Your task to perform on an android device: Search for Mexican restaurants on Maps Image 0: 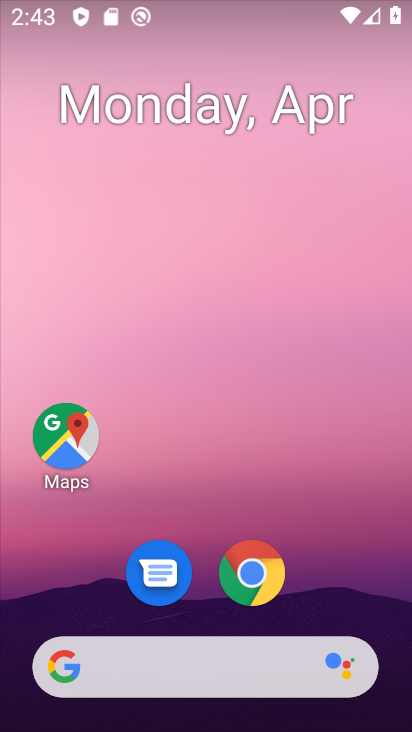
Step 0: drag from (366, 594) to (364, 73)
Your task to perform on an android device: Search for Mexican restaurants on Maps Image 1: 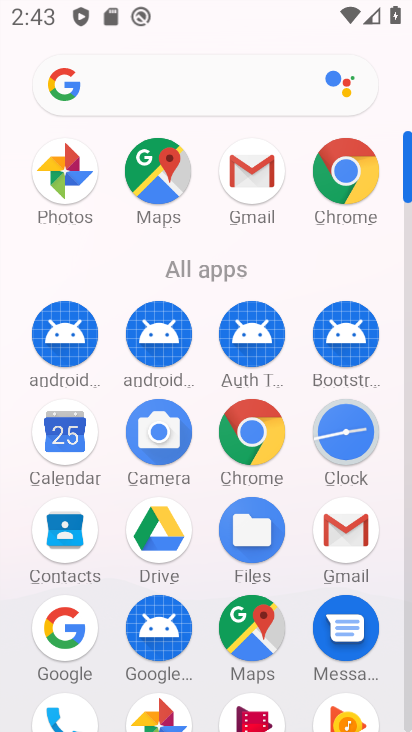
Step 1: click (170, 181)
Your task to perform on an android device: Search for Mexican restaurants on Maps Image 2: 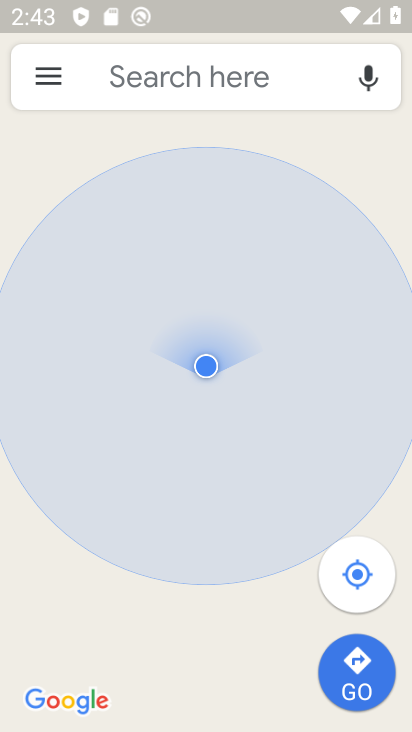
Step 2: click (241, 83)
Your task to perform on an android device: Search for Mexican restaurants on Maps Image 3: 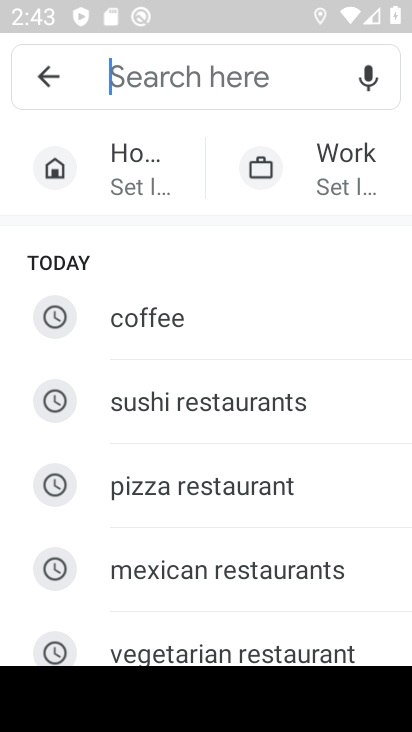
Step 3: type "mexcian restaurants"
Your task to perform on an android device: Search for Mexican restaurants on Maps Image 4: 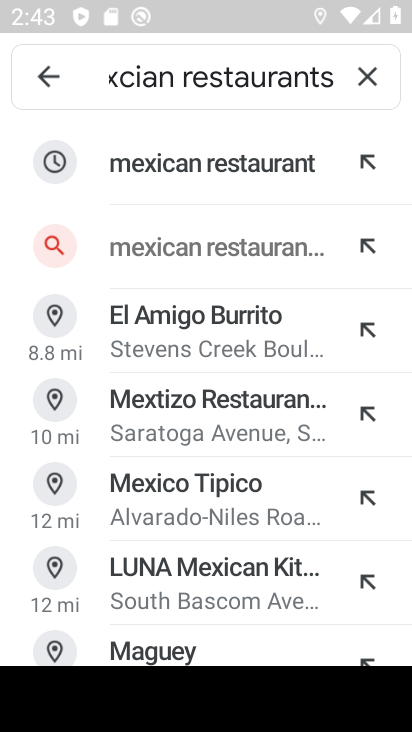
Step 4: click (206, 171)
Your task to perform on an android device: Search for Mexican restaurants on Maps Image 5: 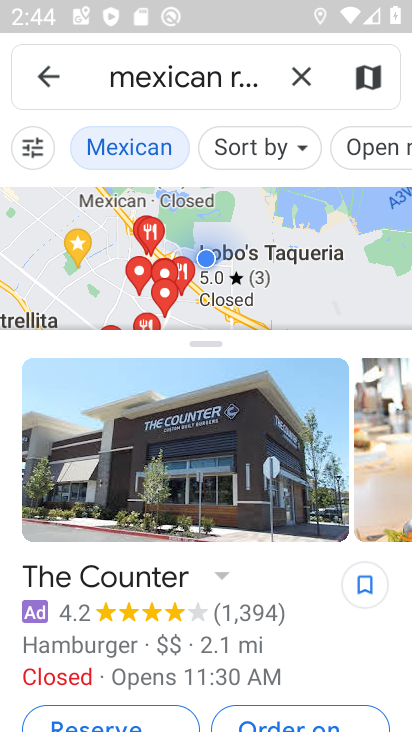
Step 5: task complete